Your task to perform on an android device: change notifications settings Image 0: 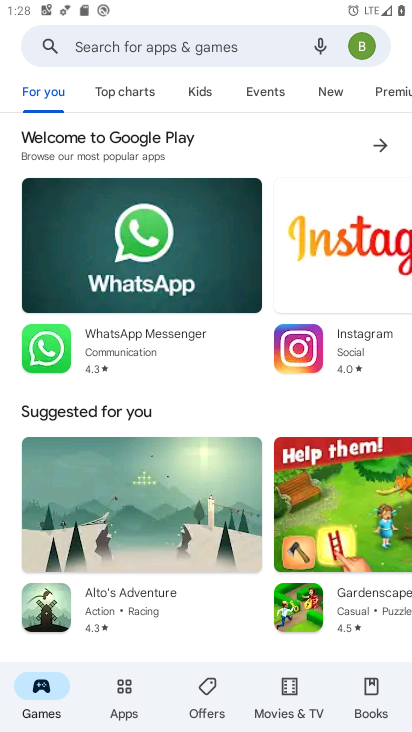
Step 0: press home button
Your task to perform on an android device: change notifications settings Image 1: 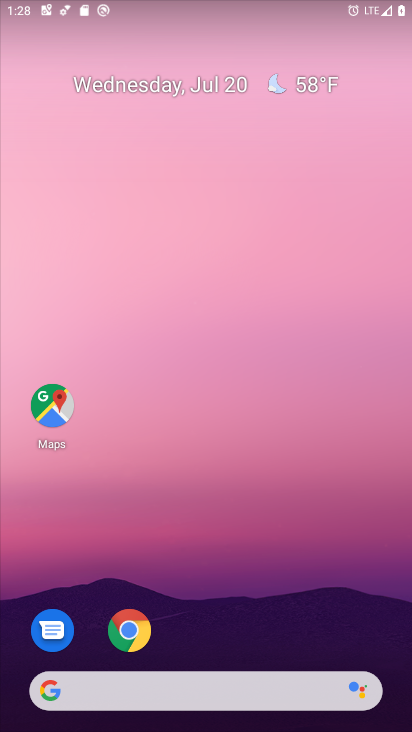
Step 1: drag from (196, 661) to (196, 65)
Your task to perform on an android device: change notifications settings Image 2: 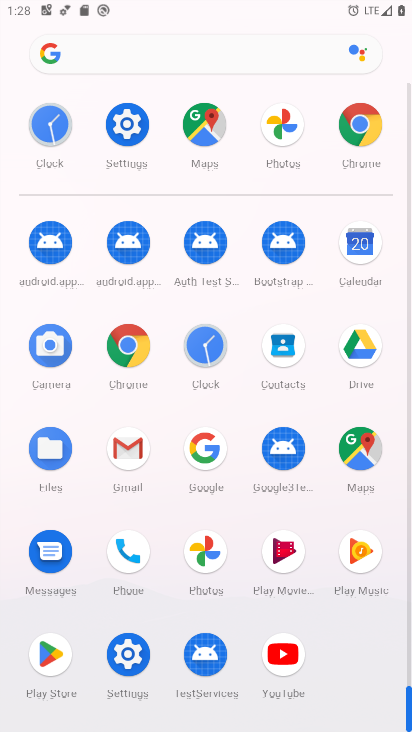
Step 2: click (130, 142)
Your task to perform on an android device: change notifications settings Image 3: 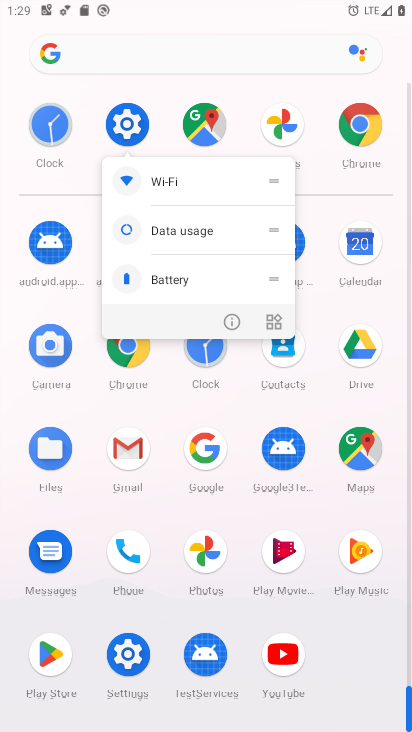
Step 3: click (134, 112)
Your task to perform on an android device: change notifications settings Image 4: 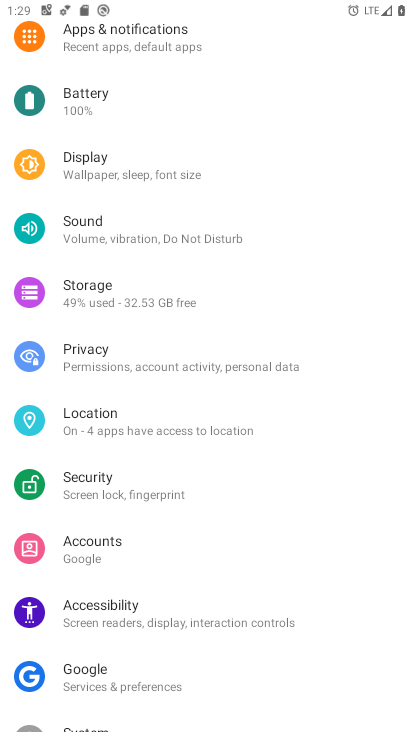
Step 4: drag from (96, 224) to (157, 650)
Your task to perform on an android device: change notifications settings Image 5: 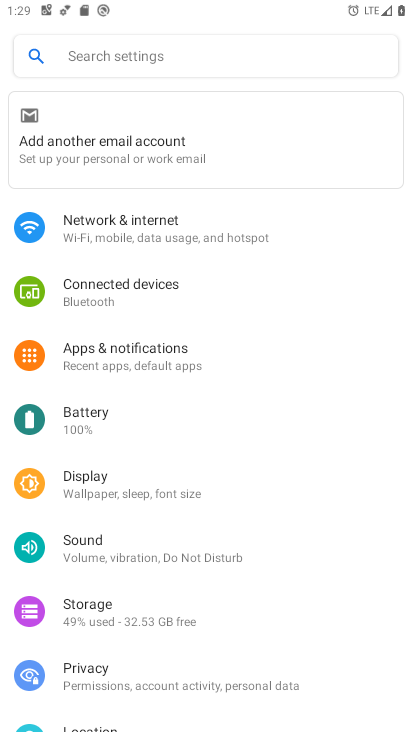
Step 5: click (217, 363)
Your task to perform on an android device: change notifications settings Image 6: 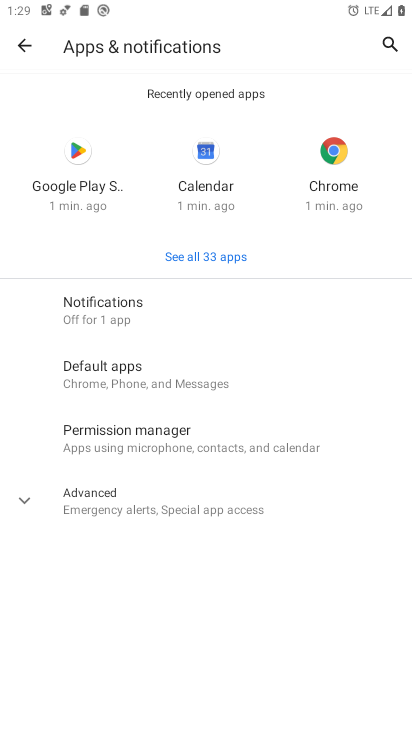
Step 6: click (126, 291)
Your task to perform on an android device: change notifications settings Image 7: 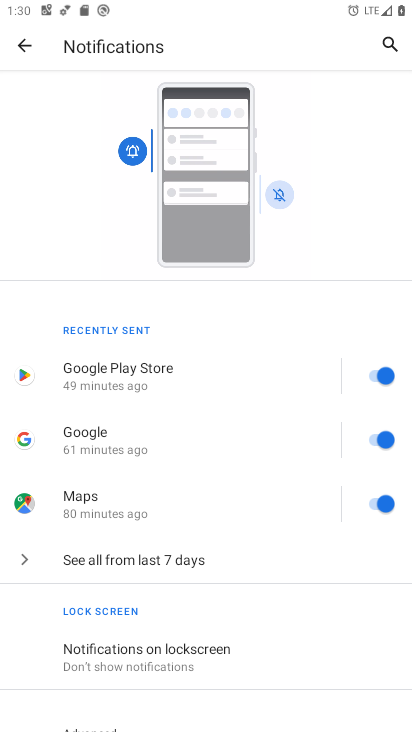
Step 7: click (379, 378)
Your task to perform on an android device: change notifications settings Image 8: 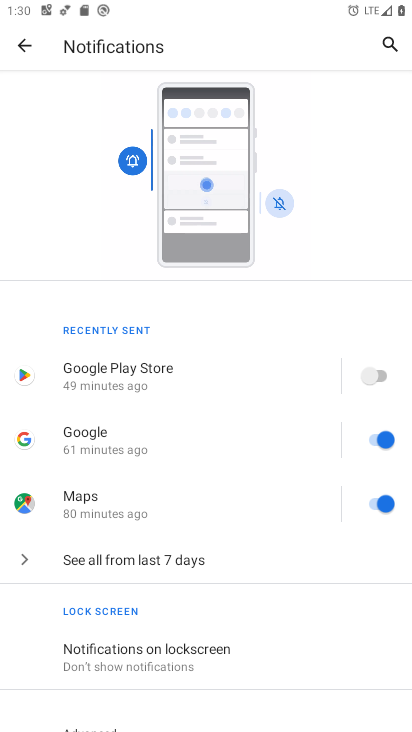
Step 8: task complete